Your task to perform on an android device: toggle wifi Image 0: 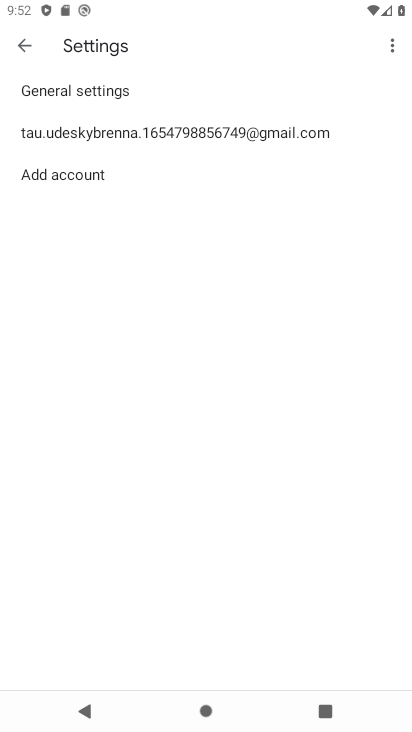
Step 0: press home button
Your task to perform on an android device: toggle wifi Image 1: 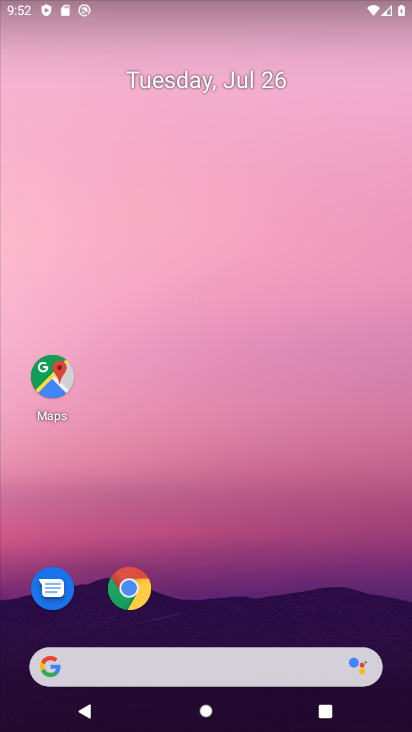
Step 1: drag from (249, 612) to (202, 158)
Your task to perform on an android device: toggle wifi Image 2: 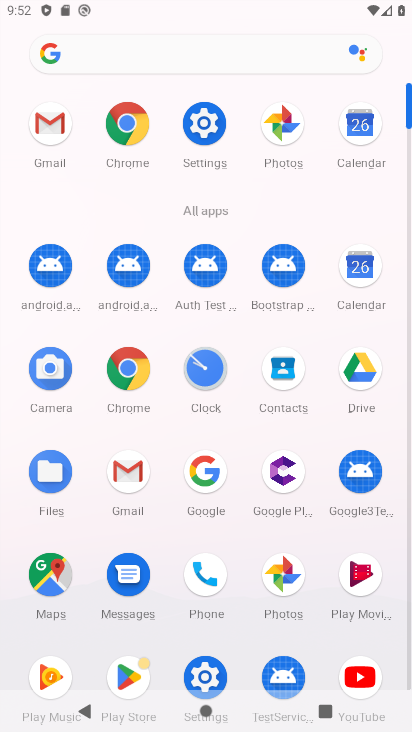
Step 2: click (201, 131)
Your task to perform on an android device: toggle wifi Image 3: 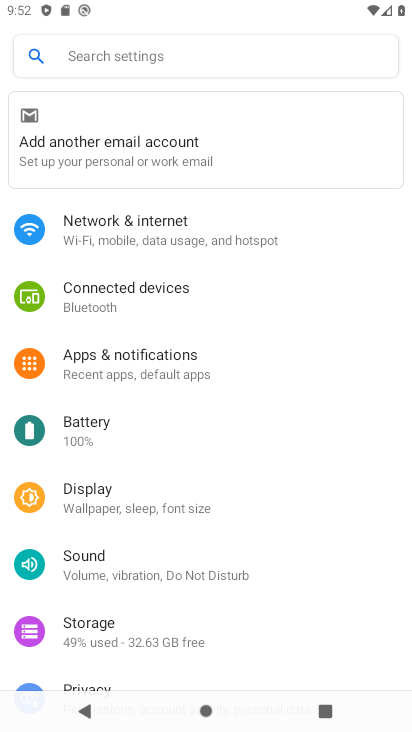
Step 3: click (187, 232)
Your task to perform on an android device: toggle wifi Image 4: 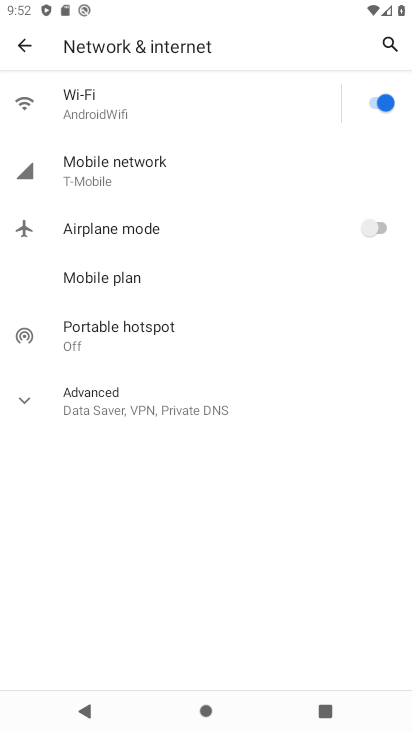
Step 4: click (387, 112)
Your task to perform on an android device: toggle wifi Image 5: 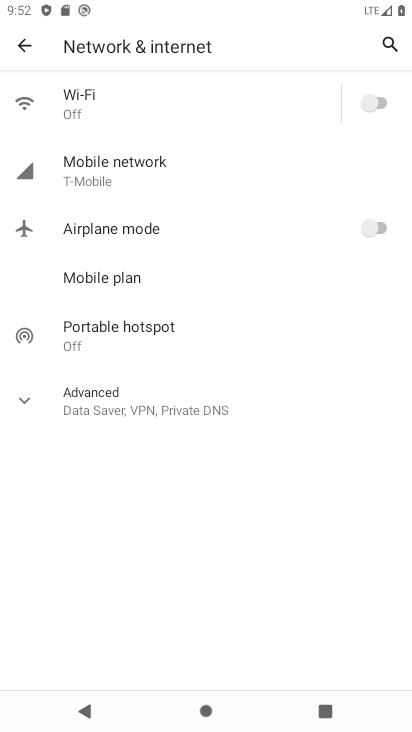
Step 5: task complete